Your task to perform on an android device: Look up the best rated kitchen knives on Amazon. Image 0: 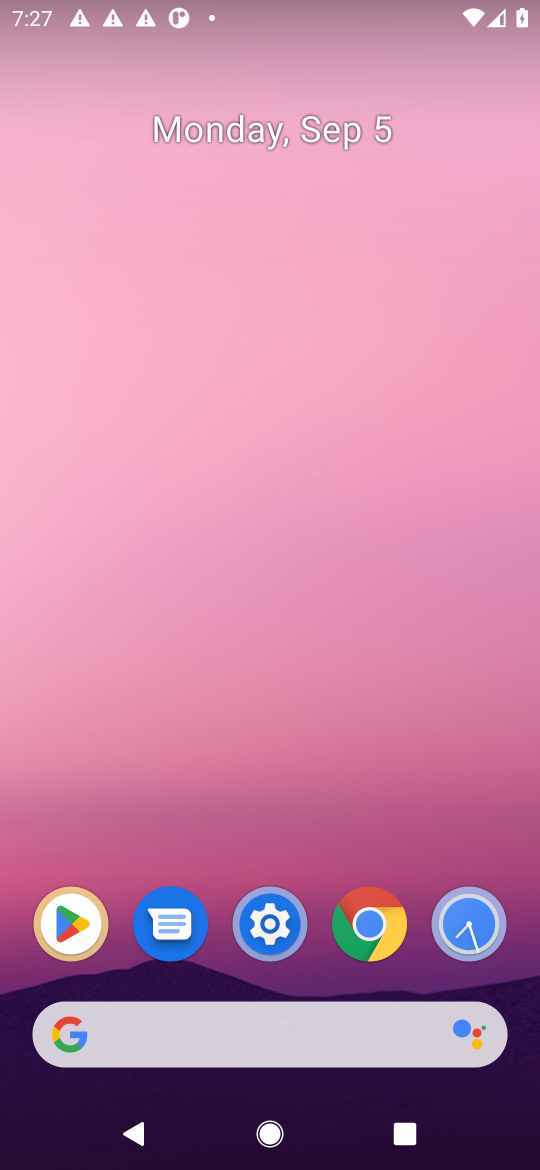
Step 0: click (378, 1036)
Your task to perform on an android device: Look up the best rated kitchen knives on Amazon. Image 1: 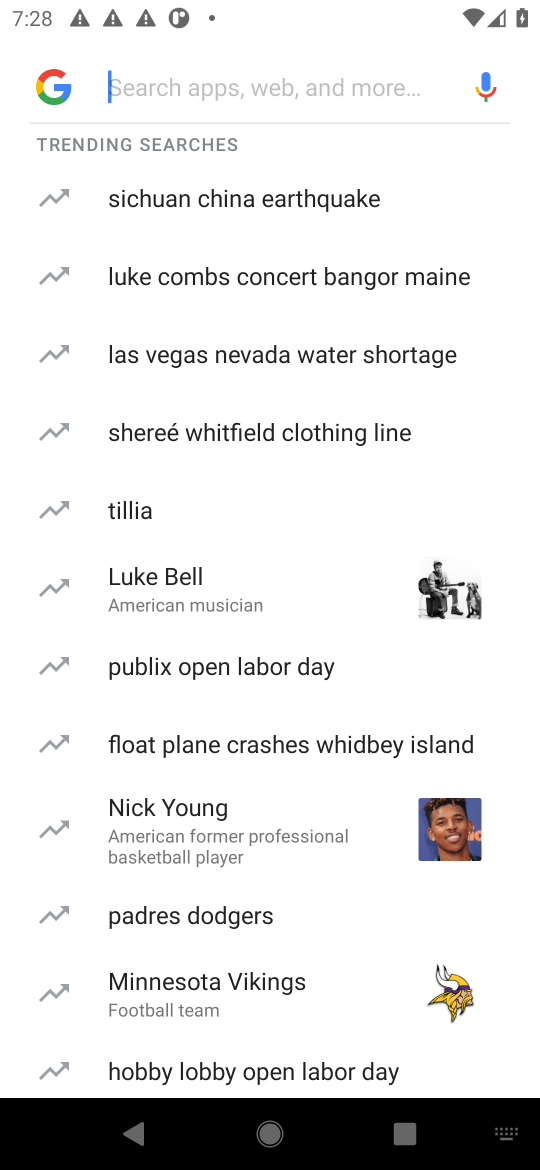
Step 1: press enter
Your task to perform on an android device: Look up the best rated kitchen knives on Amazon. Image 2: 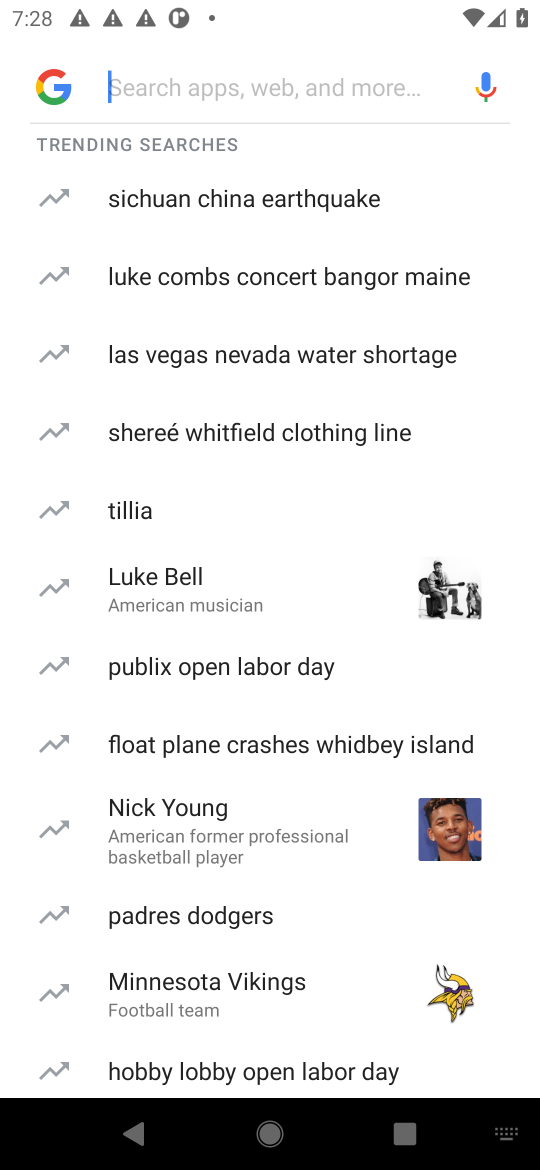
Step 2: type "amazon"
Your task to perform on an android device: Look up the best rated kitchen knives on Amazon. Image 3: 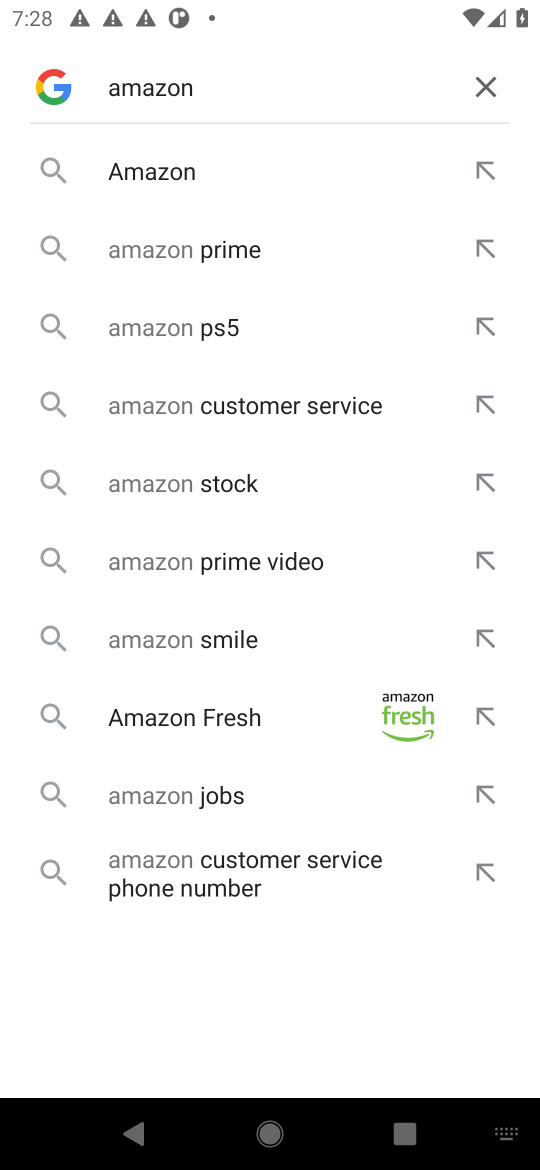
Step 3: click (178, 157)
Your task to perform on an android device: Look up the best rated kitchen knives on Amazon. Image 4: 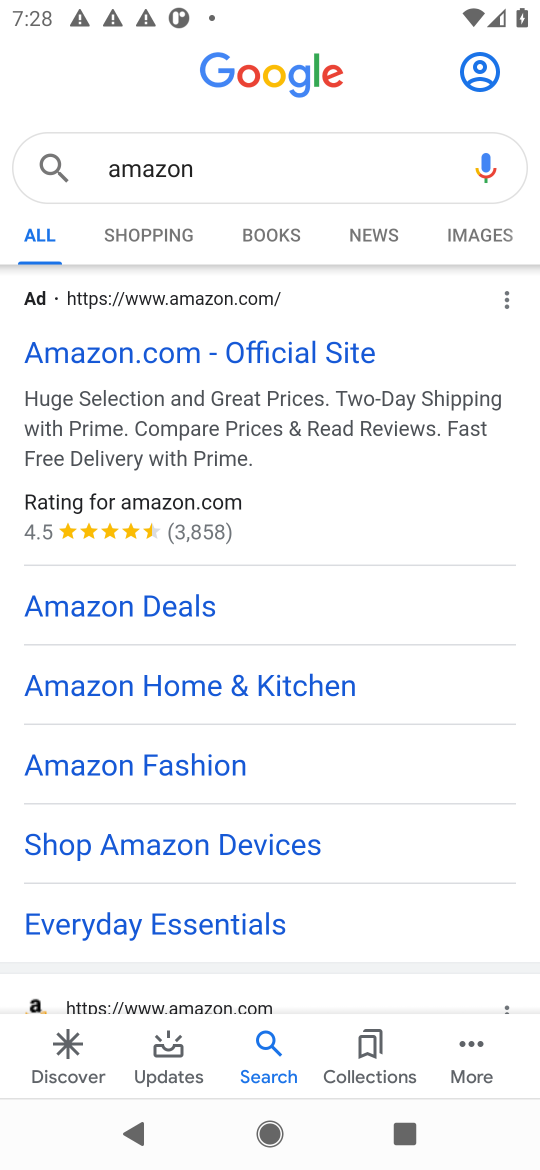
Step 4: click (202, 360)
Your task to perform on an android device: Look up the best rated kitchen knives on Amazon. Image 5: 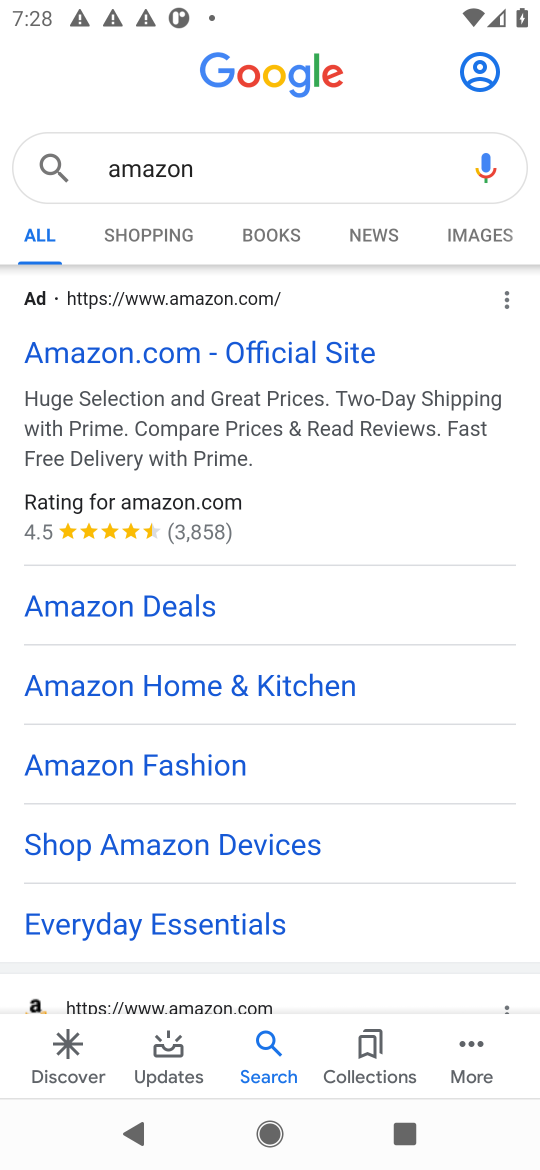
Step 5: click (189, 349)
Your task to perform on an android device: Look up the best rated kitchen knives on Amazon. Image 6: 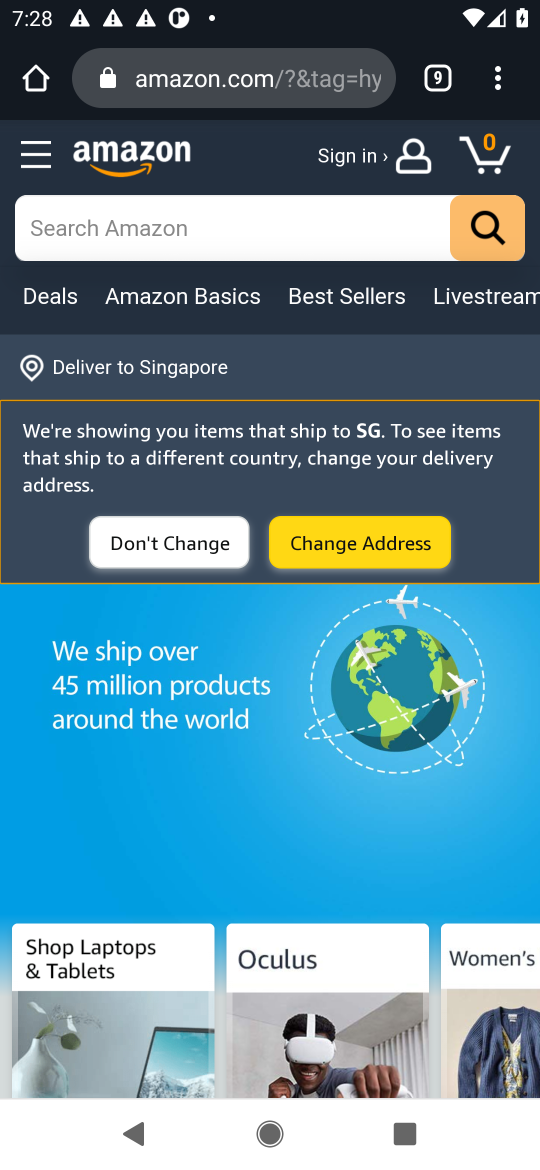
Step 6: click (213, 219)
Your task to perform on an android device: Look up the best rated kitchen knives on Amazon. Image 7: 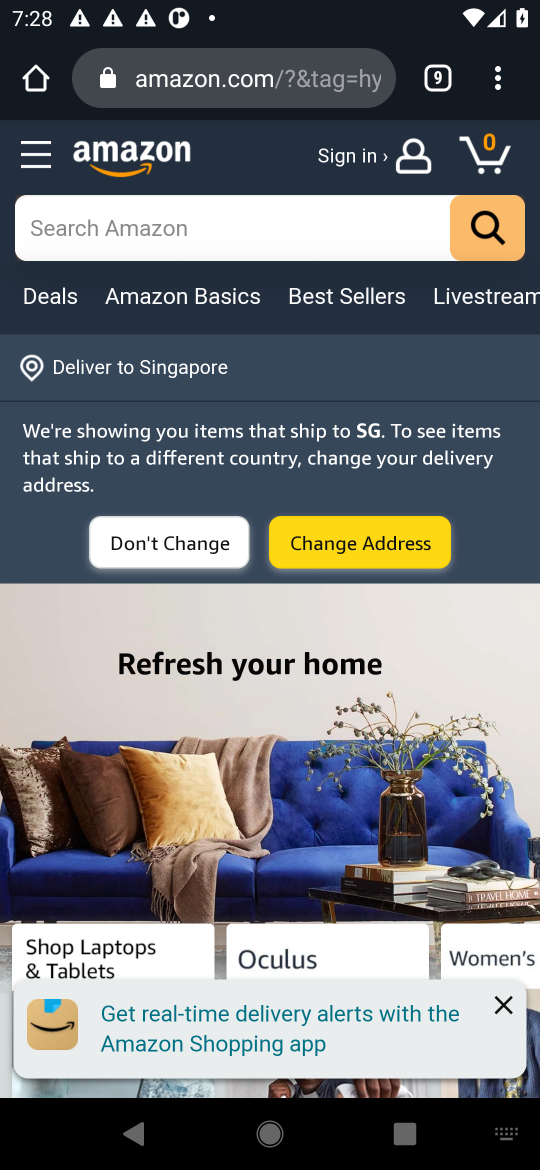
Step 7: type "best rated kitchen knives"
Your task to perform on an android device: Look up the best rated kitchen knives on Amazon. Image 8: 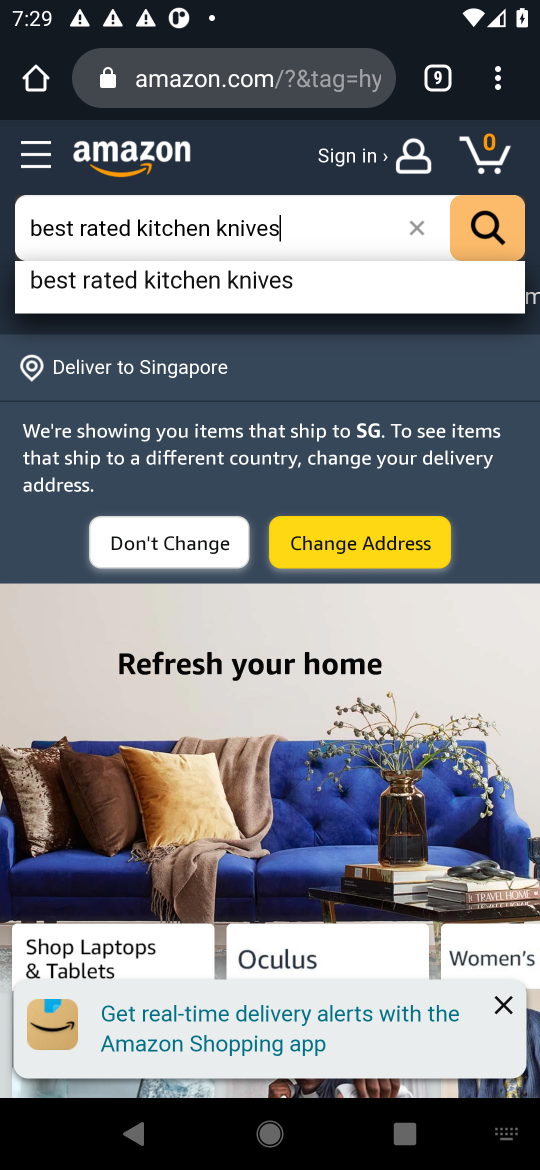
Step 8: click (298, 290)
Your task to perform on an android device: Look up the best rated kitchen knives on Amazon. Image 9: 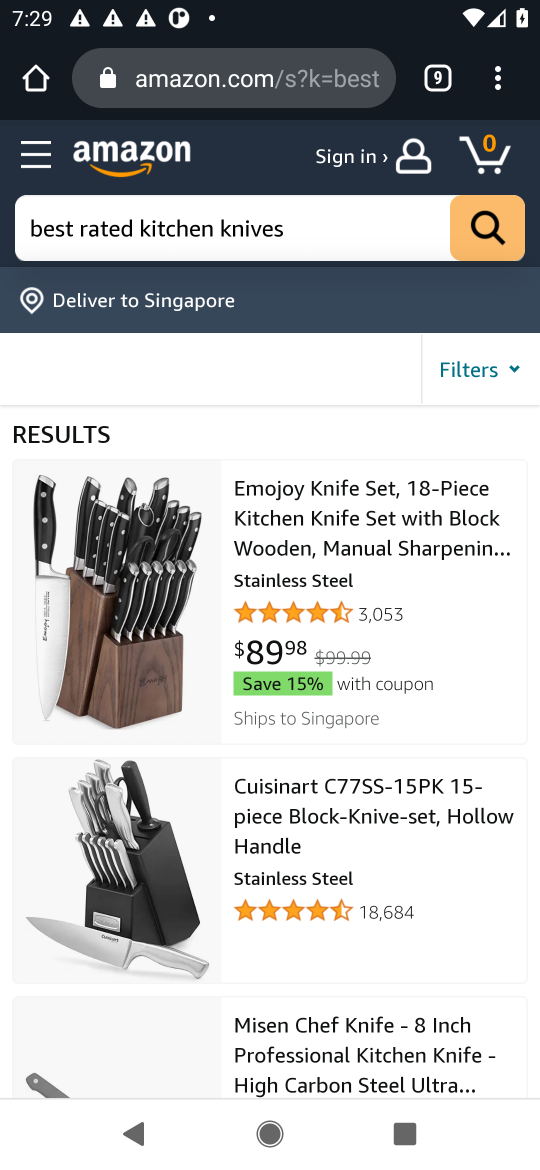
Step 9: task complete